Your task to perform on an android device: all mails in gmail Image 0: 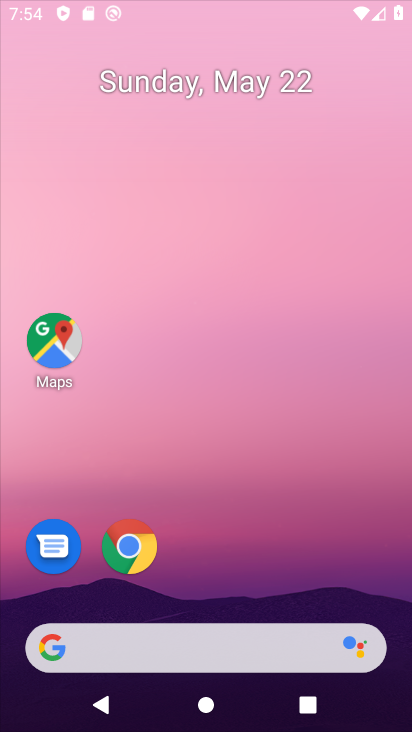
Step 0: drag from (264, 675) to (192, 251)
Your task to perform on an android device: all mails in gmail Image 1: 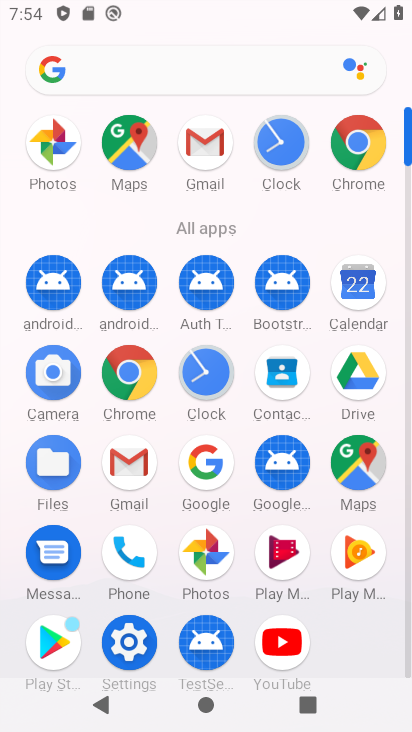
Step 1: click (113, 452)
Your task to perform on an android device: all mails in gmail Image 2: 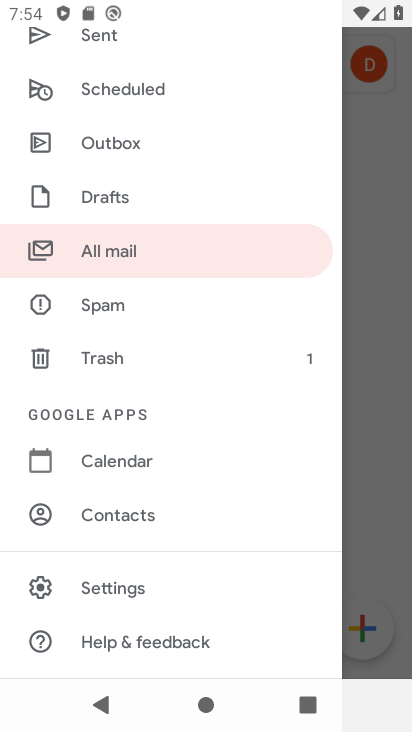
Step 2: click (133, 255)
Your task to perform on an android device: all mails in gmail Image 3: 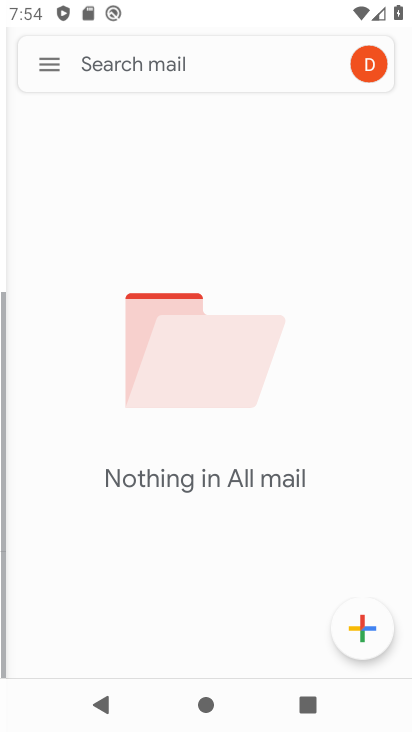
Step 3: click (133, 255)
Your task to perform on an android device: all mails in gmail Image 4: 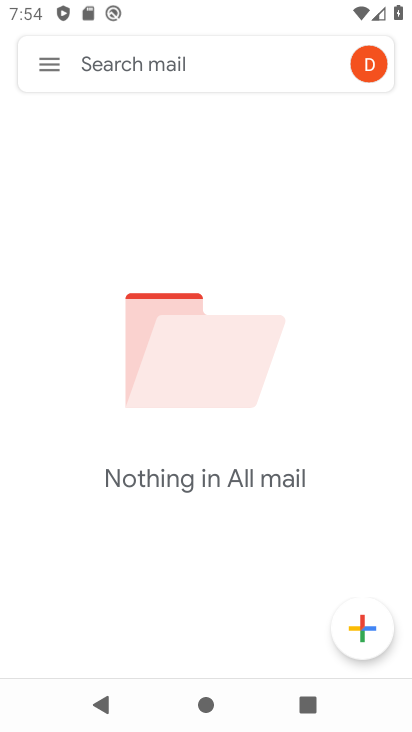
Step 4: click (133, 255)
Your task to perform on an android device: all mails in gmail Image 5: 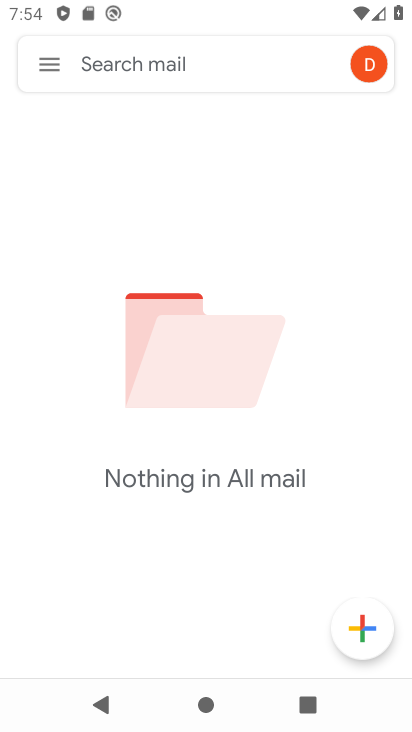
Step 5: click (136, 251)
Your task to perform on an android device: all mails in gmail Image 6: 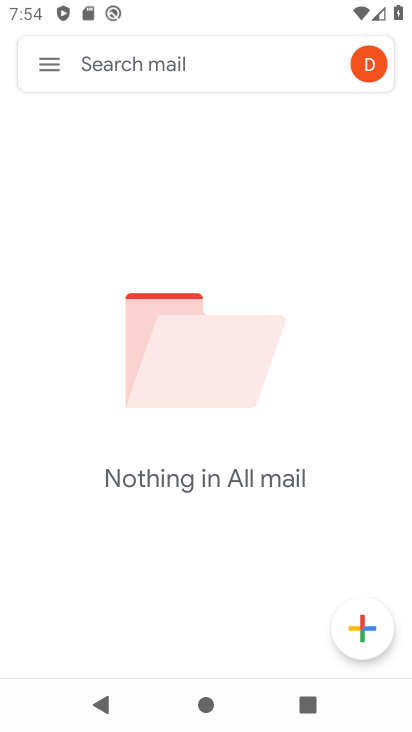
Step 6: task complete